Your task to perform on an android device: Show me recent news Image 0: 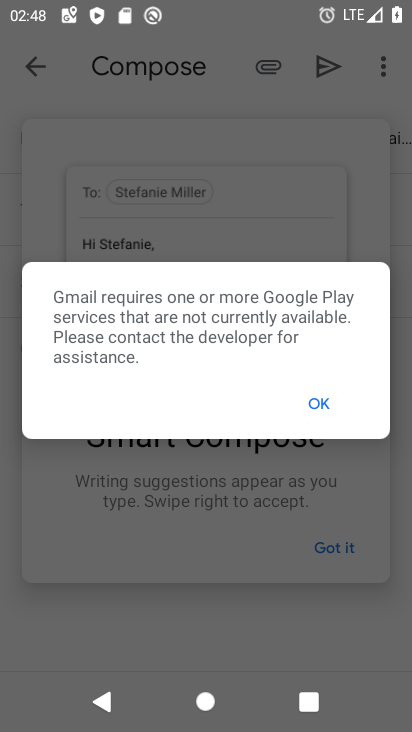
Step 0: press home button
Your task to perform on an android device: Show me recent news Image 1: 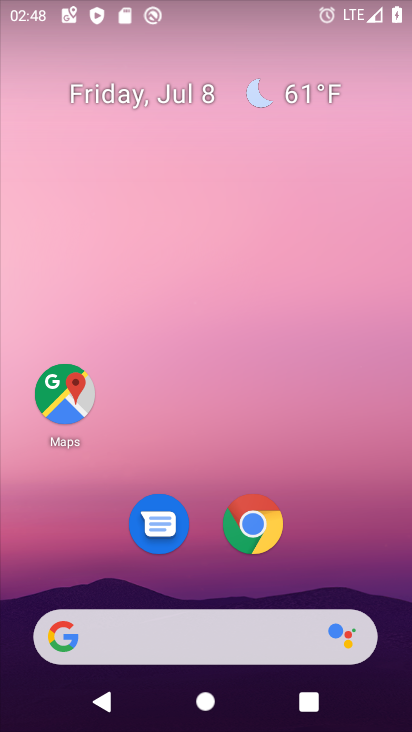
Step 1: click (242, 639)
Your task to perform on an android device: Show me recent news Image 2: 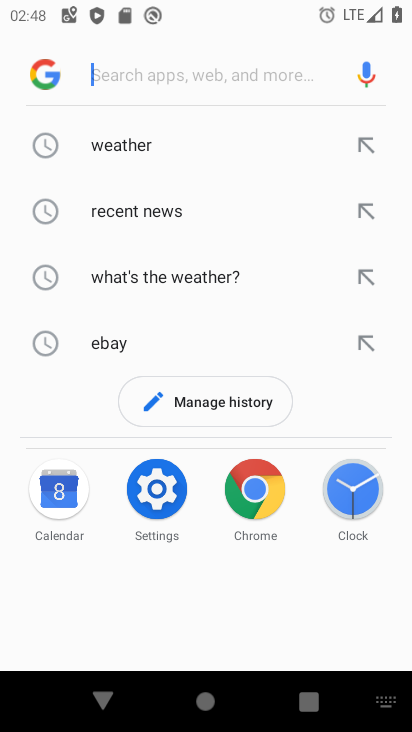
Step 2: click (173, 202)
Your task to perform on an android device: Show me recent news Image 3: 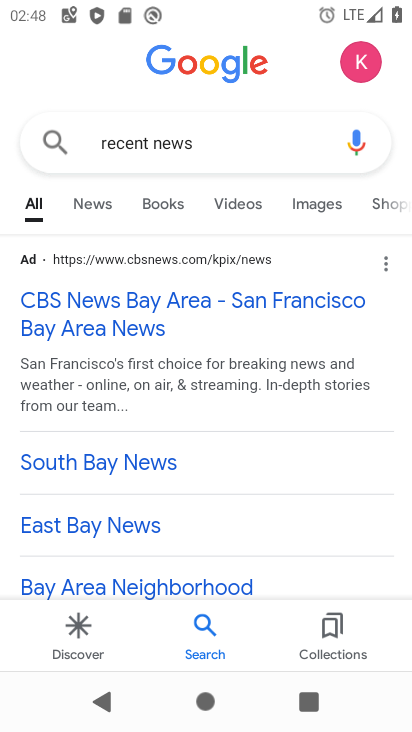
Step 3: click (93, 204)
Your task to perform on an android device: Show me recent news Image 4: 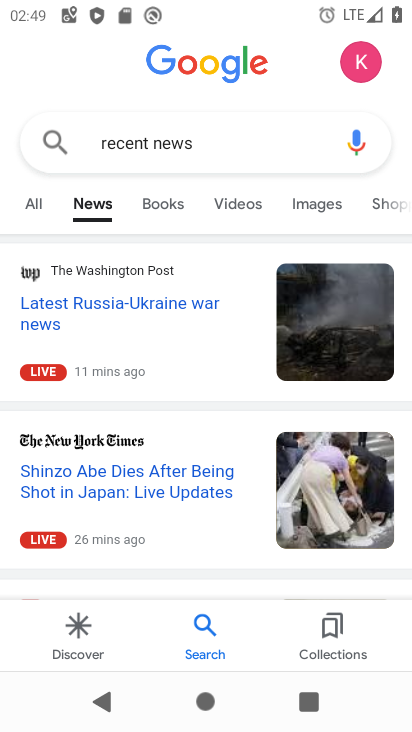
Step 4: click (175, 478)
Your task to perform on an android device: Show me recent news Image 5: 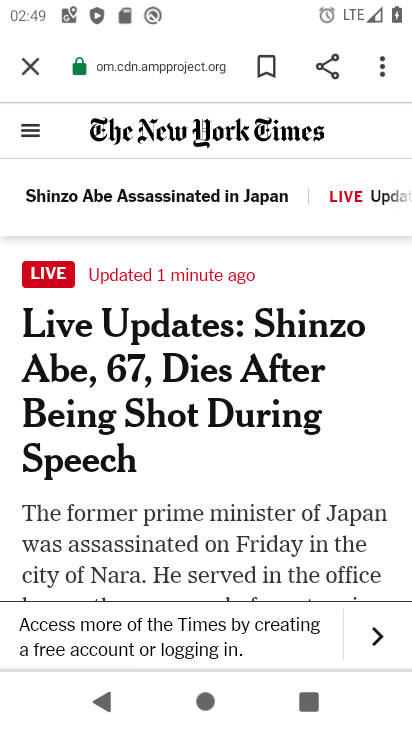
Step 5: task complete